Your task to perform on an android device: check battery use Image 0: 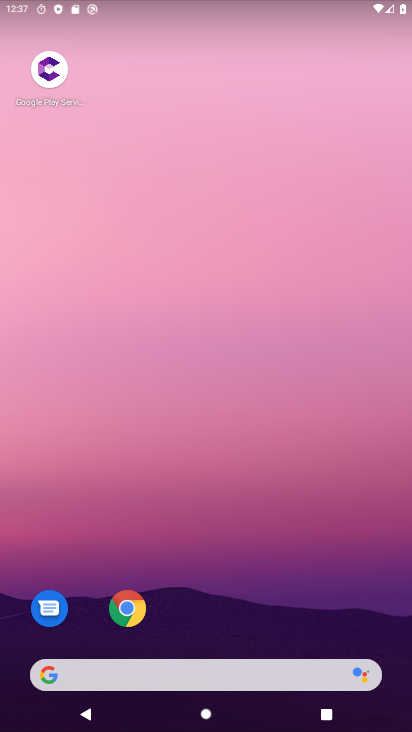
Step 0: drag from (264, 340) to (262, 57)
Your task to perform on an android device: check battery use Image 1: 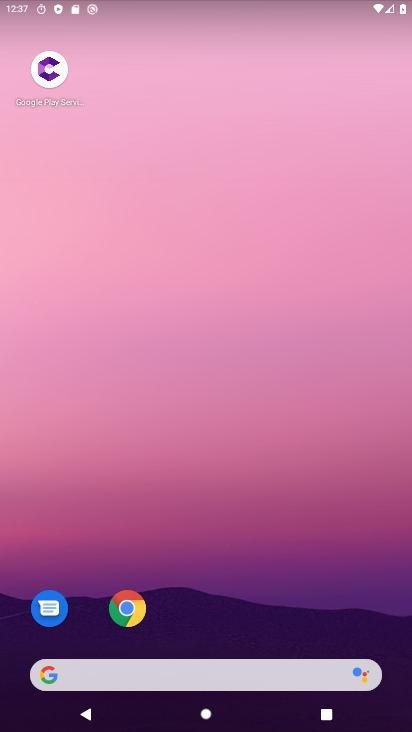
Step 1: drag from (237, 648) to (205, 0)
Your task to perform on an android device: check battery use Image 2: 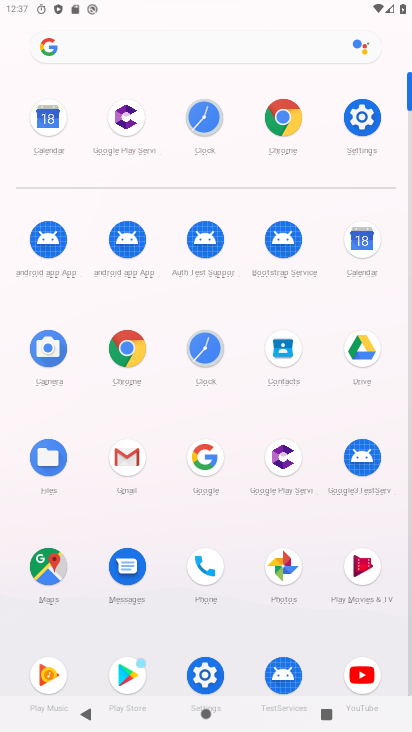
Step 2: click (361, 137)
Your task to perform on an android device: check battery use Image 3: 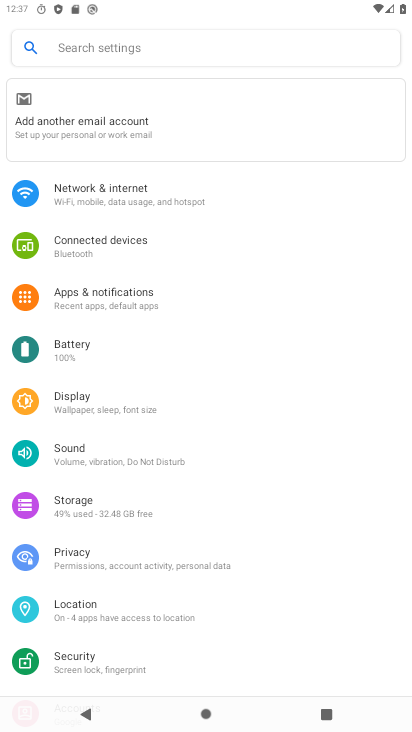
Step 3: click (78, 359)
Your task to perform on an android device: check battery use Image 4: 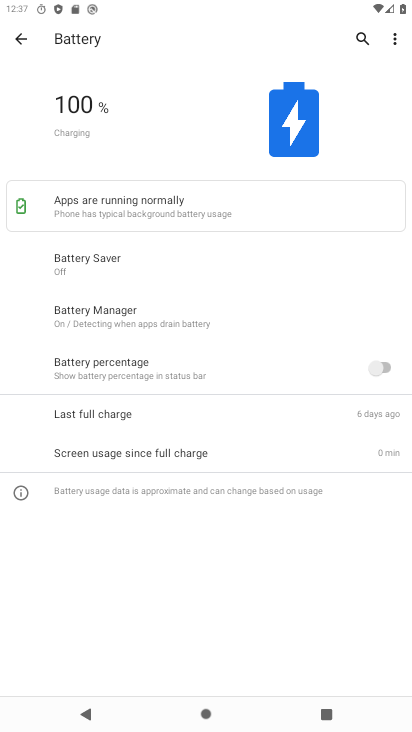
Step 4: task complete